Your task to perform on an android device: Open the calendar and show me this week's events? Image 0: 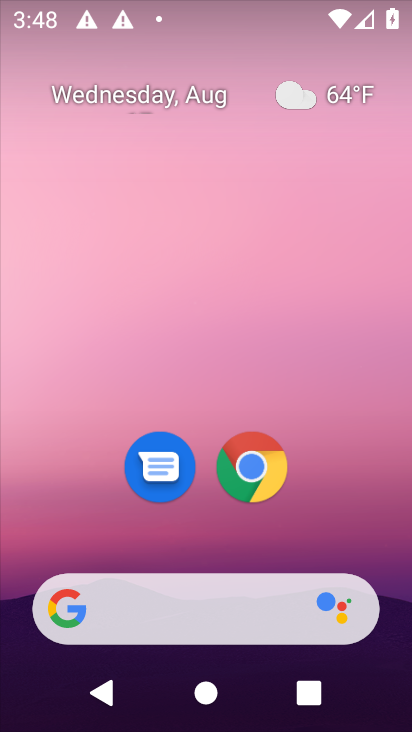
Step 0: drag from (22, 695) to (198, 317)
Your task to perform on an android device: Open the calendar and show me this week's events? Image 1: 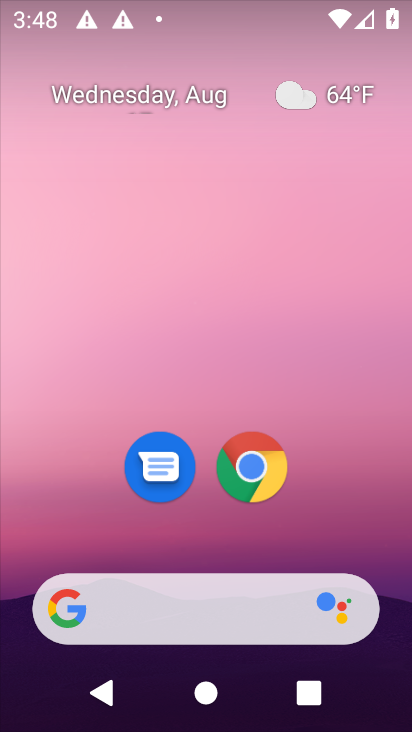
Step 1: drag from (32, 671) to (122, 254)
Your task to perform on an android device: Open the calendar and show me this week's events? Image 2: 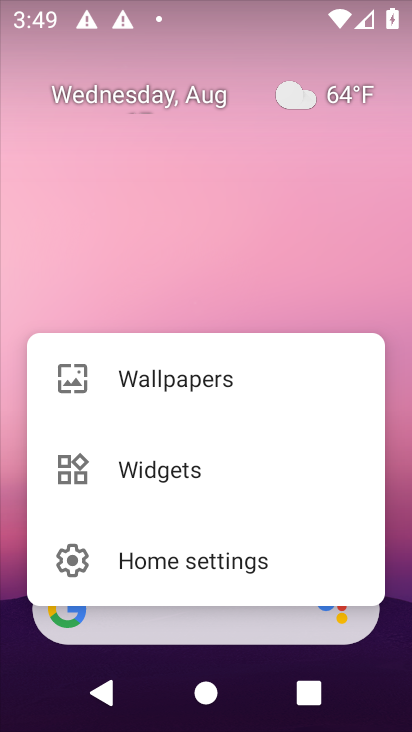
Step 2: click (17, 683)
Your task to perform on an android device: Open the calendar and show me this week's events? Image 3: 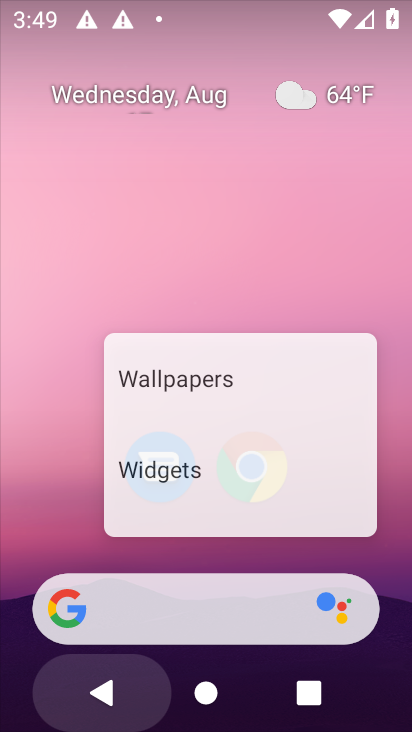
Step 3: task complete